Your task to perform on an android device: add a label to a message in the gmail app Image 0: 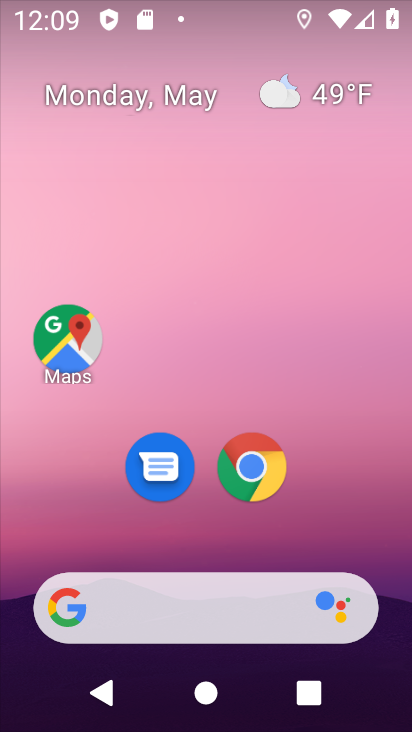
Step 0: drag from (372, 476) to (374, 119)
Your task to perform on an android device: add a label to a message in the gmail app Image 1: 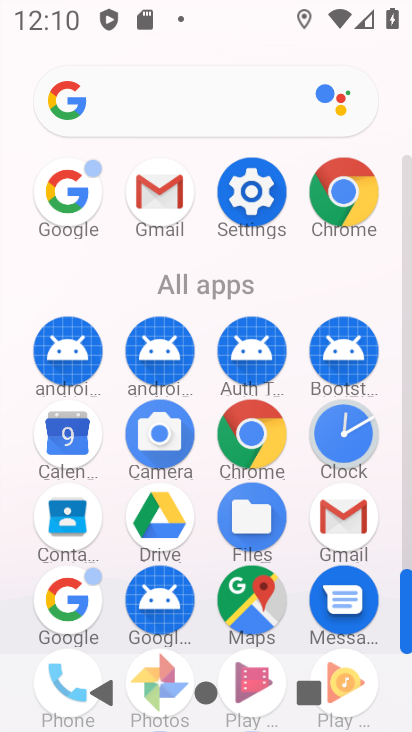
Step 1: click (349, 512)
Your task to perform on an android device: add a label to a message in the gmail app Image 2: 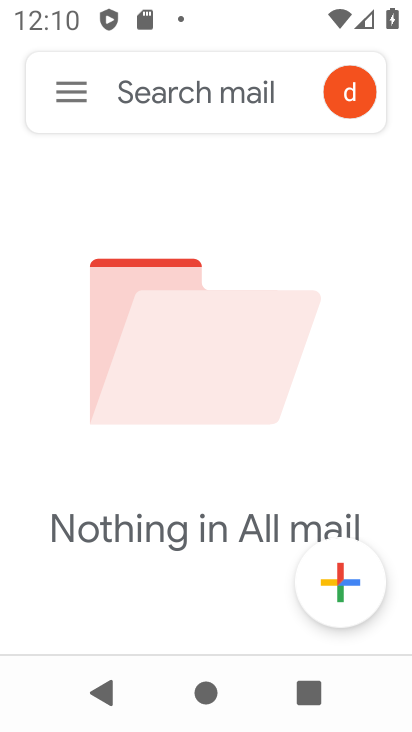
Step 2: task complete